Your task to perform on an android device: Add "apple airpods pro" to the cart on amazon.com, then select checkout. Image 0: 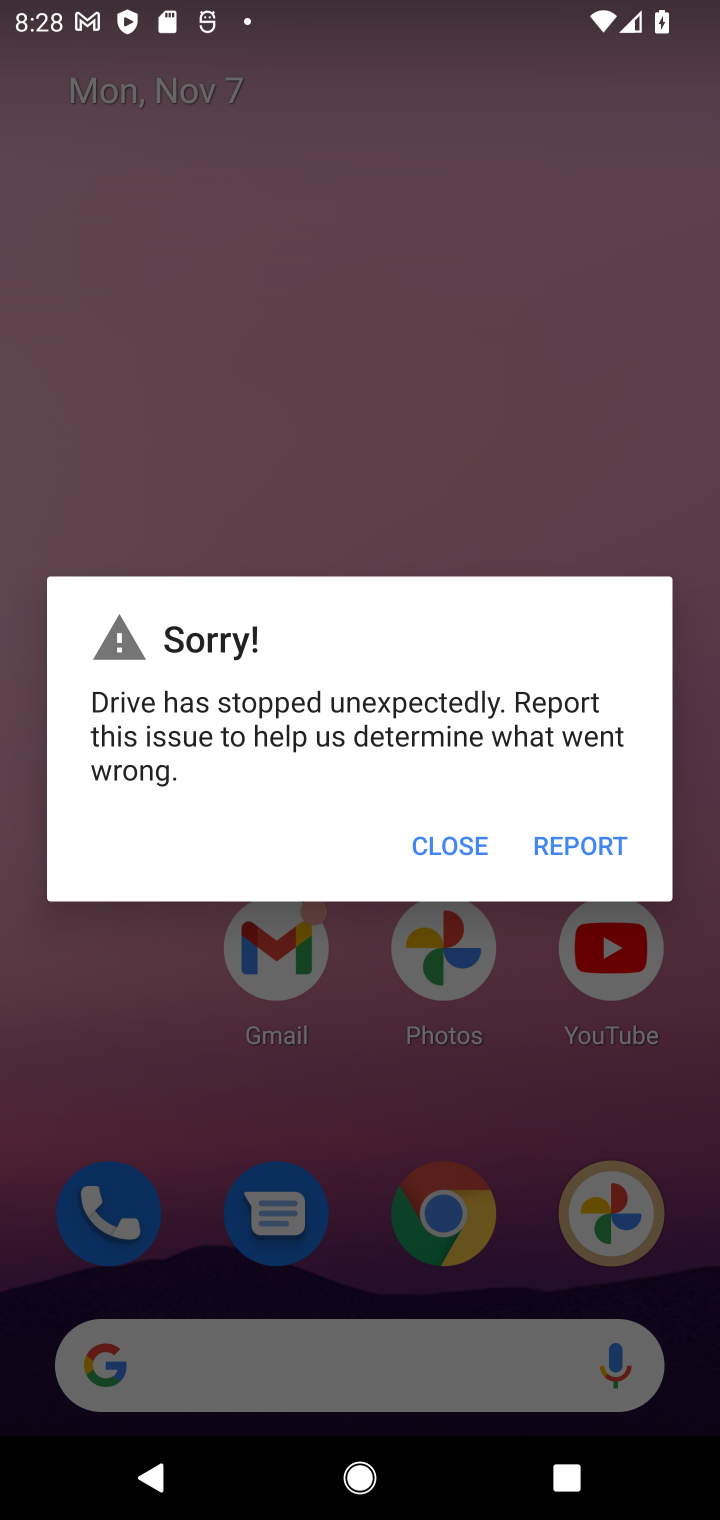
Step 0: press home button
Your task to perform on an android device: Add "apple airpods pro" to the cart on amazon.com, then select checkout. Image 1: 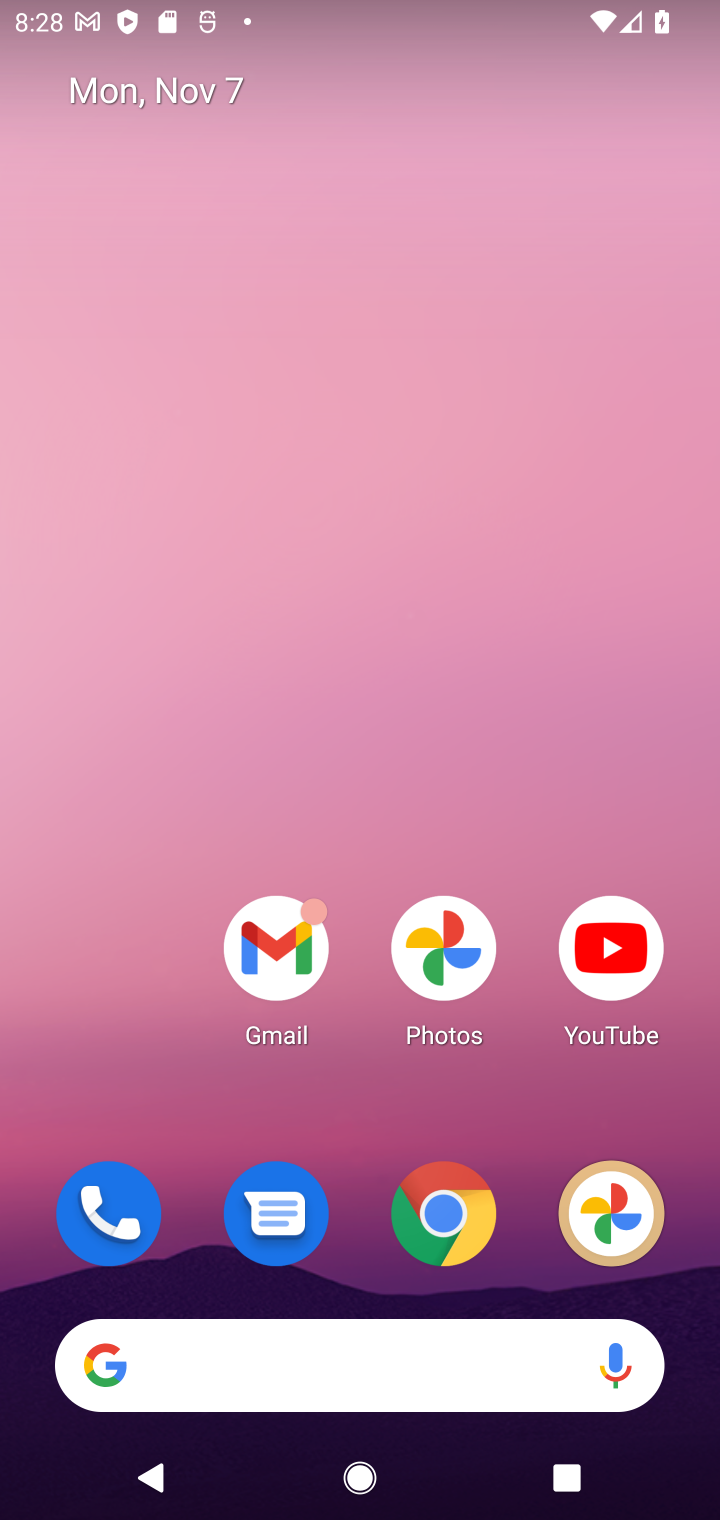
Step 1: click (431, 1221)
Your task to perform on an android device: Add "apple airpods pro" to the cart on amazon.com, then select checkout. Image 2: 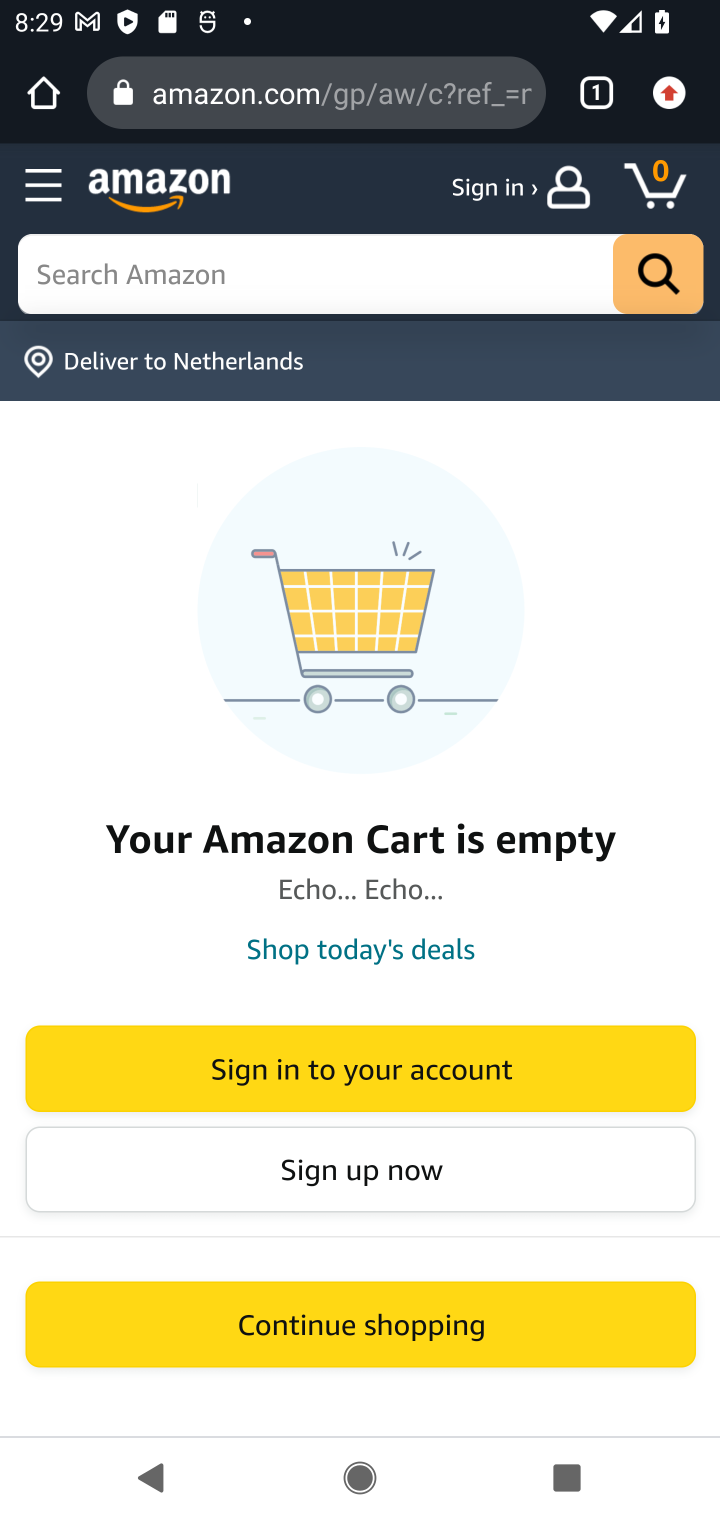
Step 2: click (176, 265)
Your task to perform on an android device: Add "apple airpods pro" to the cart on amazon.com, then select checkout. Image 3: 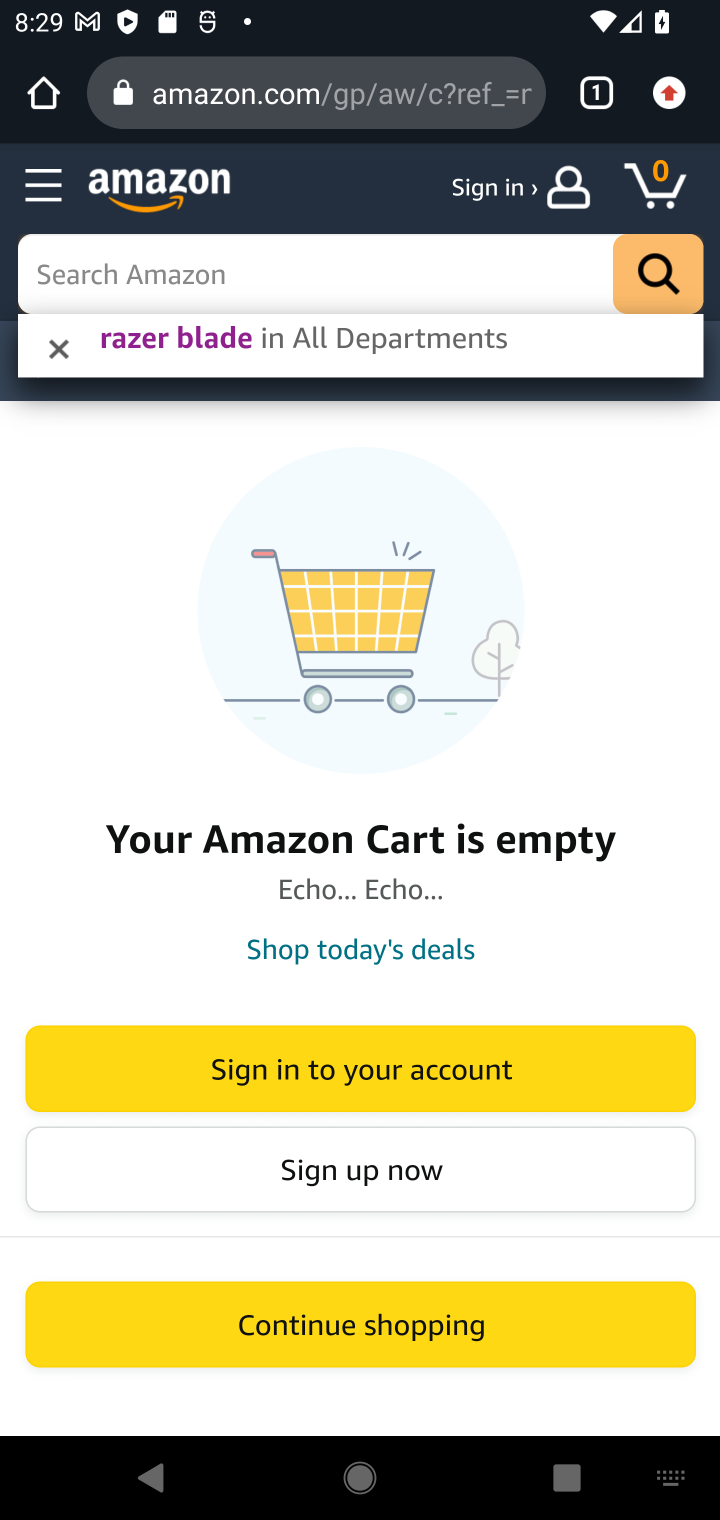
Step 3: type "apple airpods pro"
Your task to perform on an android device: Add "apple airpods pro" to the cart on amazon.com, then select checkout. Image 4: 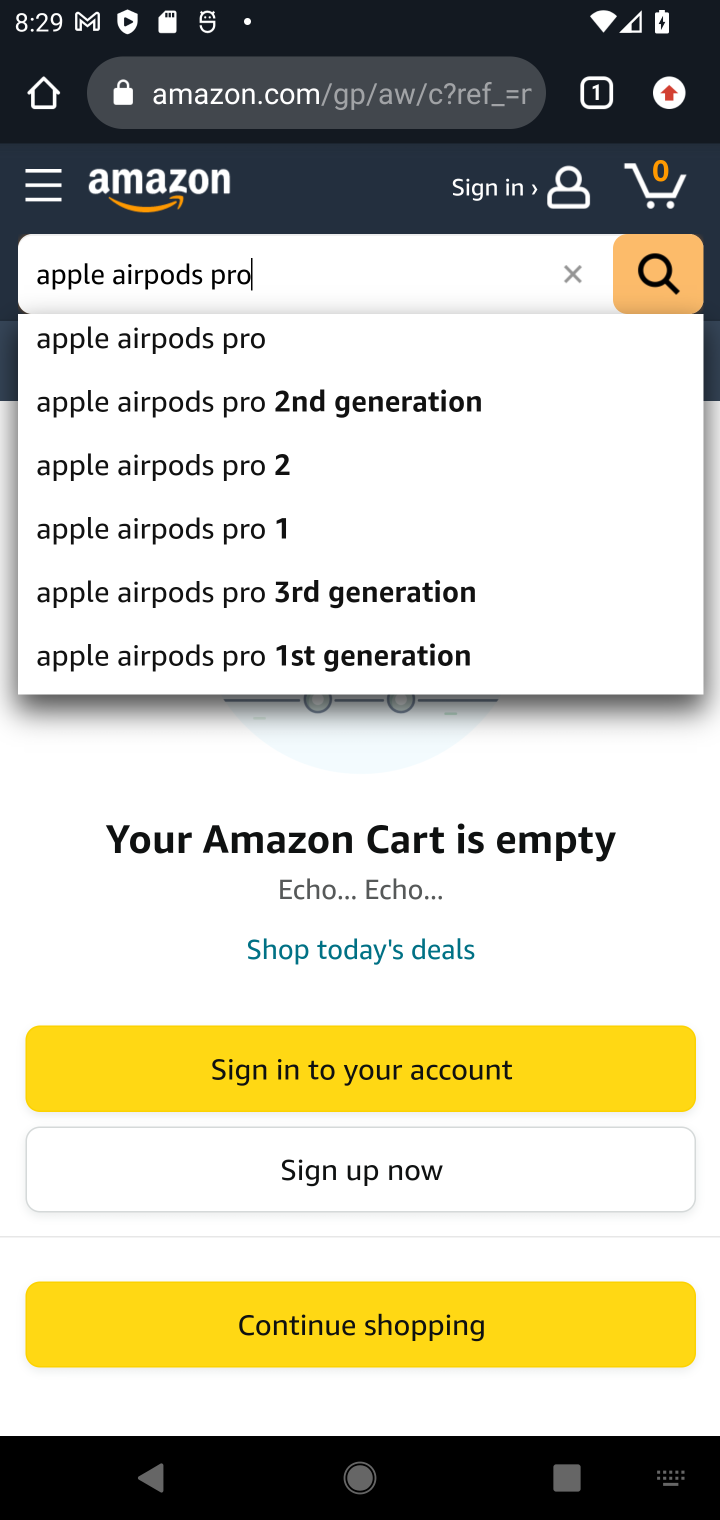
Step 4: click (189, 345)
Your task to perform on an android device: Add "apple airpods pro" to the cart on amazon.com, then select checkout. Image 5: 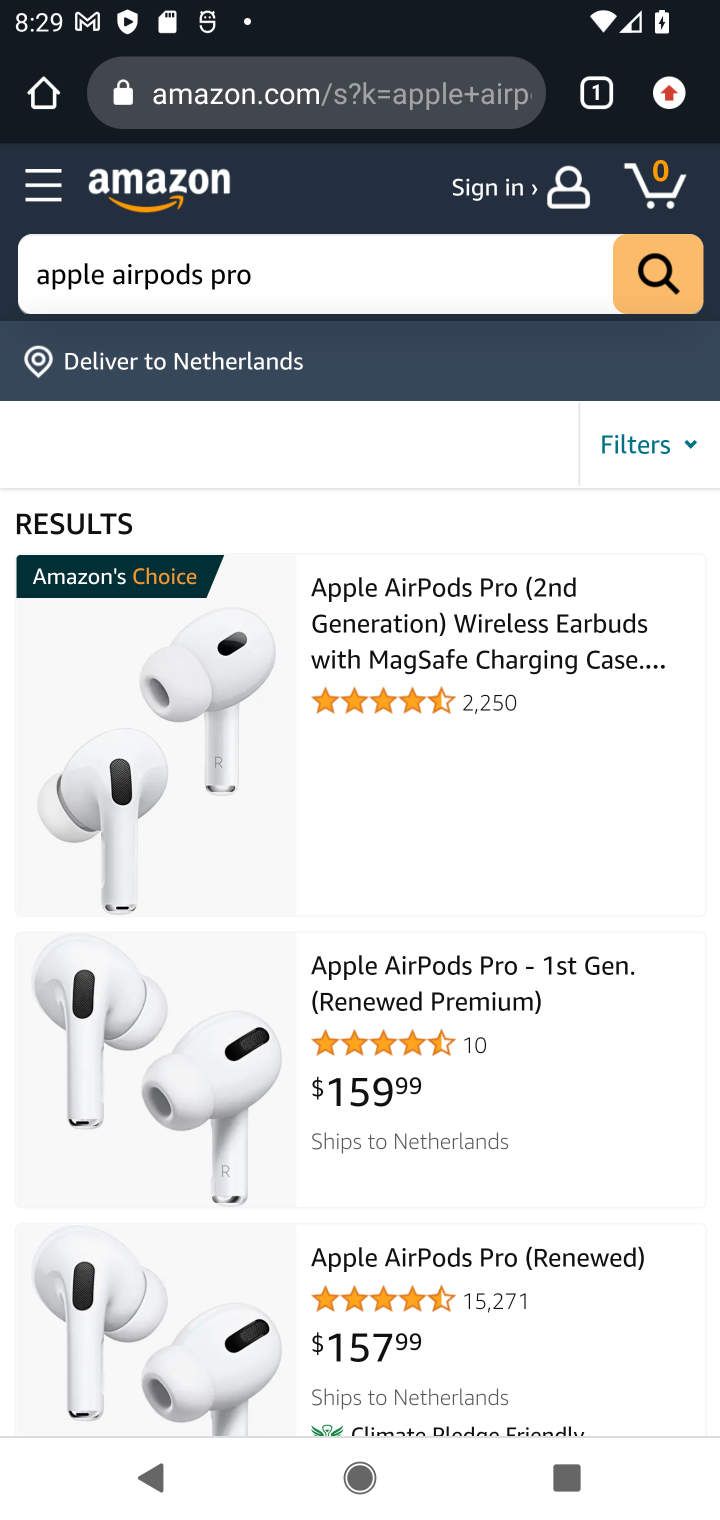
Step 5: click (199, 729)
Your task to perform on an android device: Add "apple airpods pro" to the cart on amazon.com, then select checkout. Image 6: 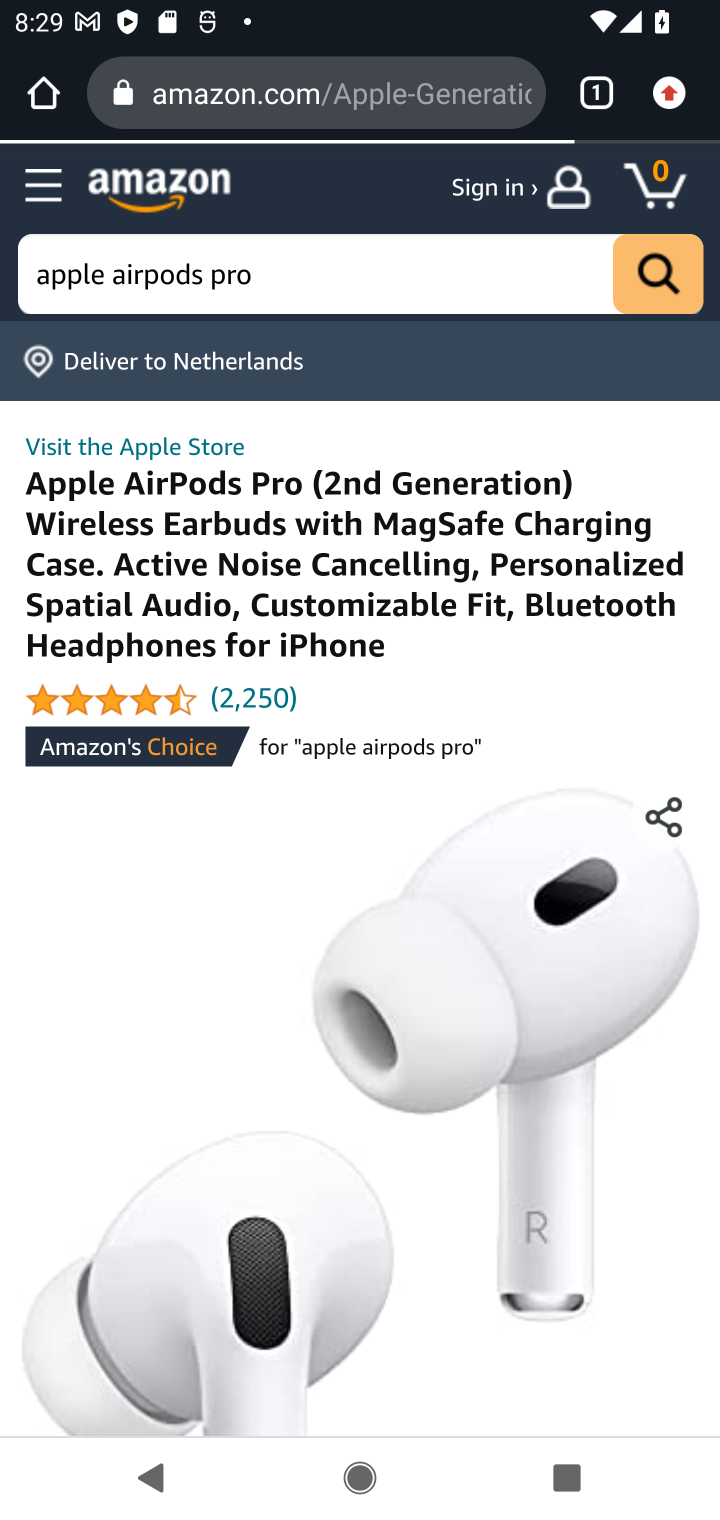
Step 6: drag from (274, 1179) to (275, 520)
Your task to perform on an android device: Add "apple airpods pro" to the cart on amazon.com, then select checkout. Image 7: 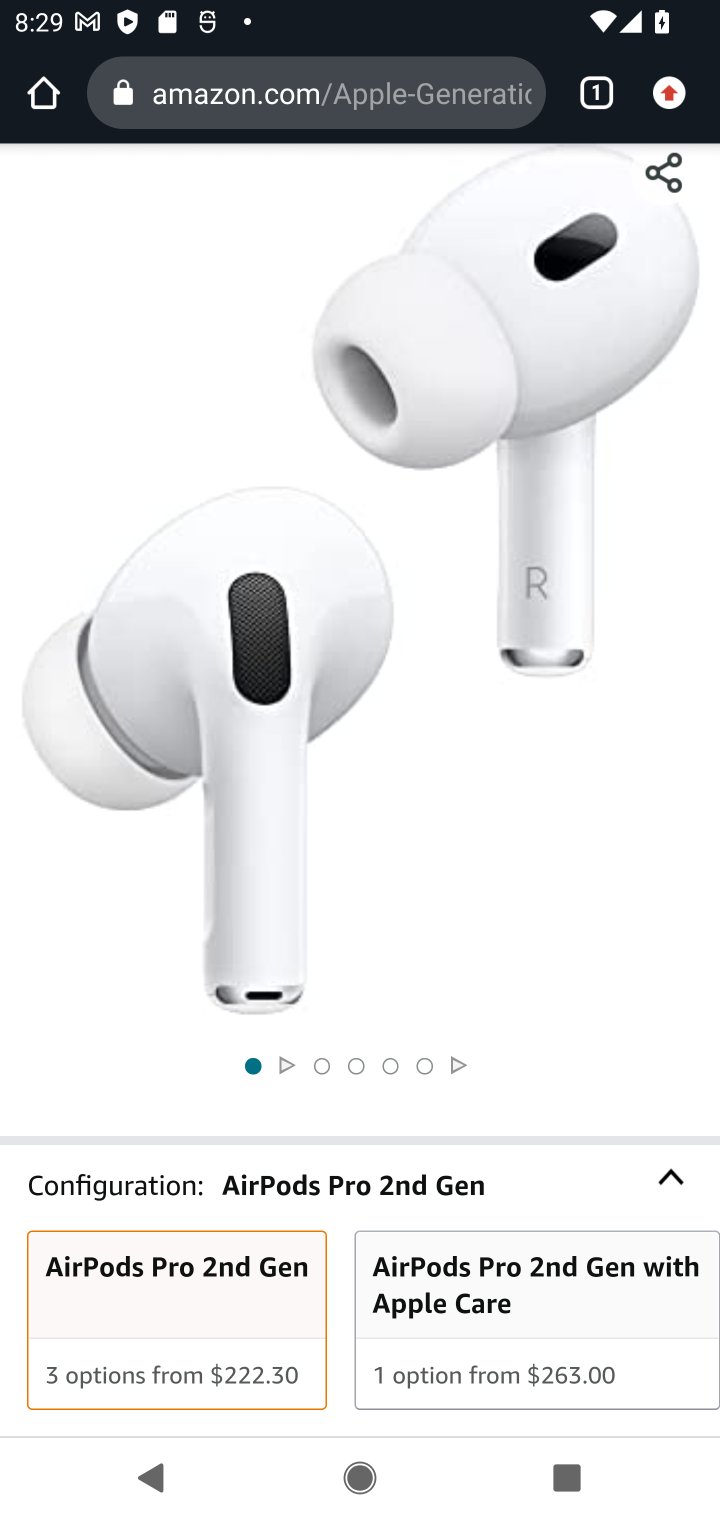
Step 7: drag from (280, 1047) to (286, 373)
Your task to perform on an android device: Add "apple airpods pro" to the cart on amazon.com, then select checkout. Image 8: 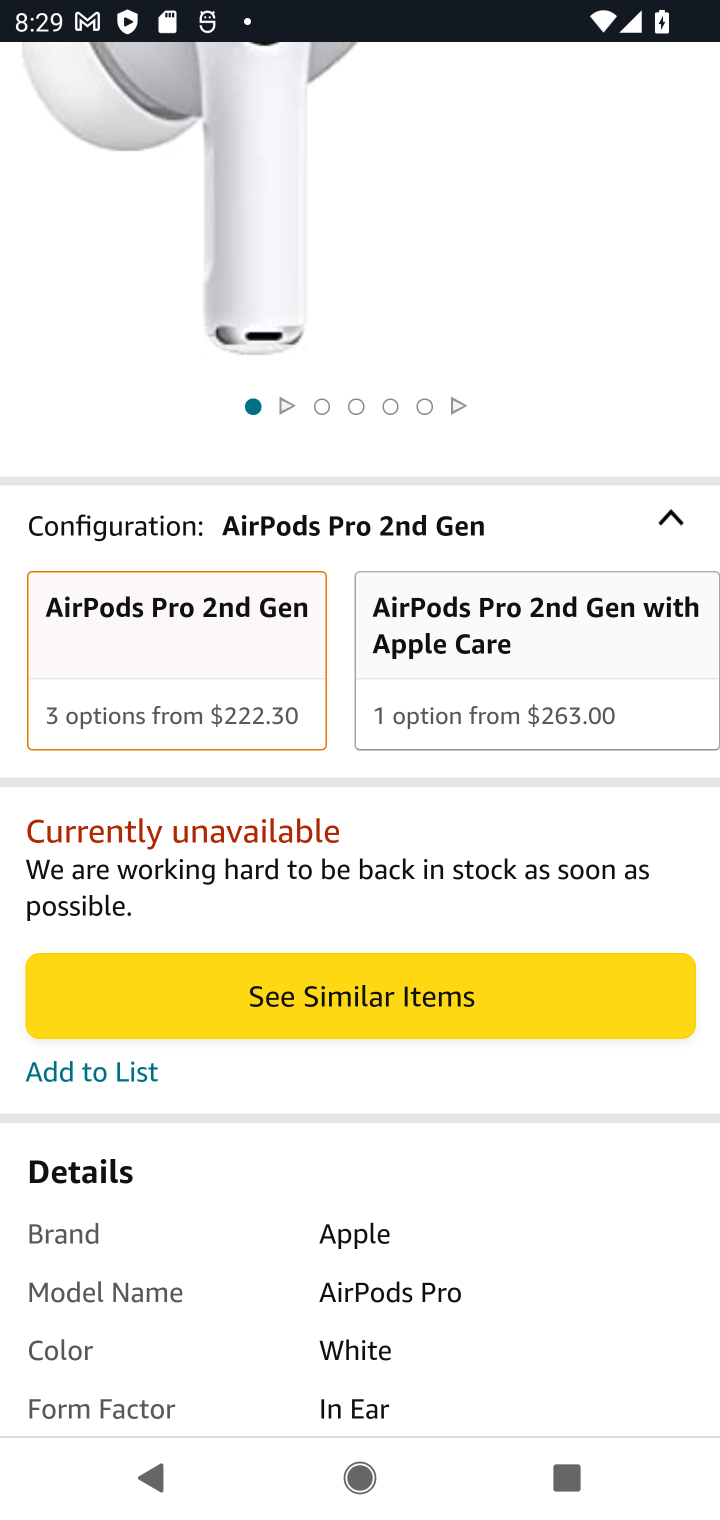
Step 8: drag from (362, 1024) to (324, 1508)
Your task to perform on an android device: Add "apple airpods pro" to the cart on amazon.com, then select checkout. Image 9: 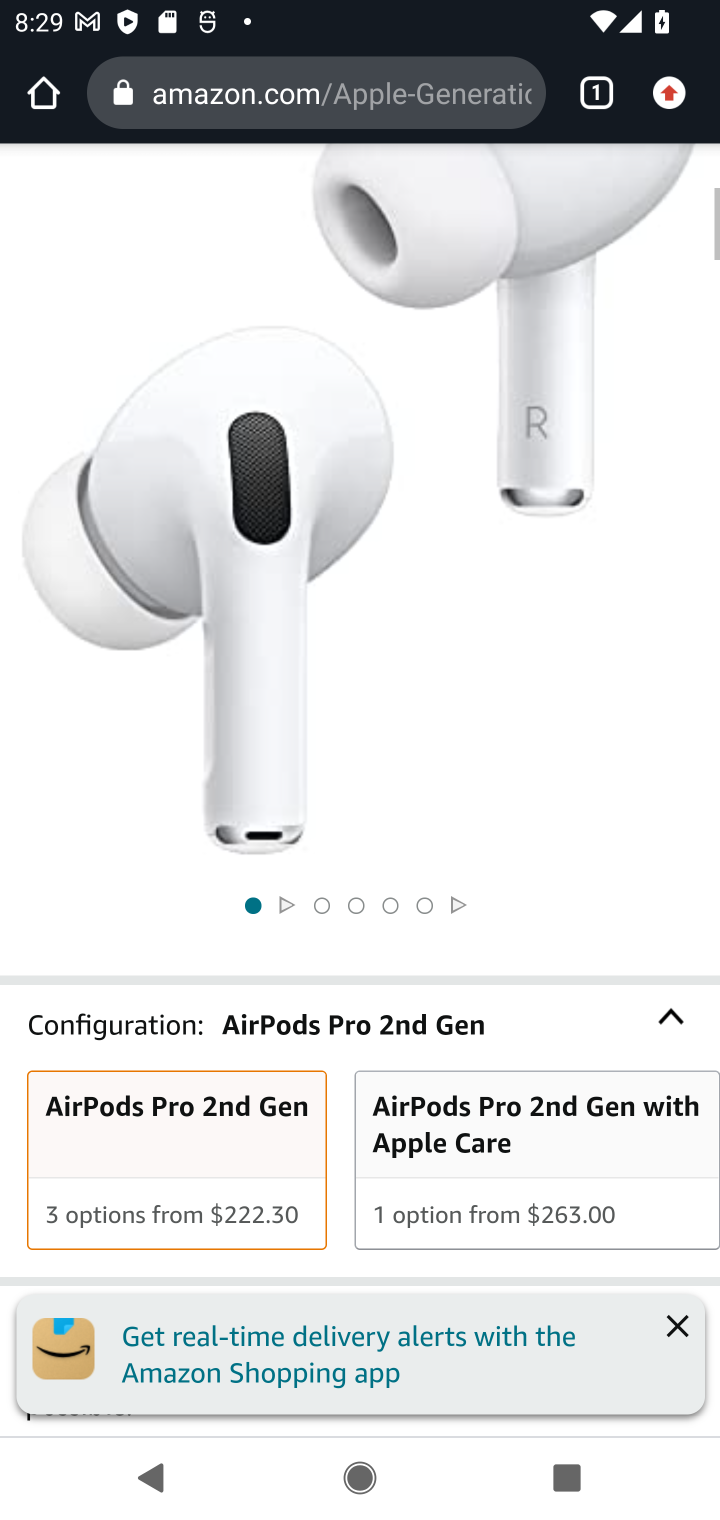
Step 9: press back button
Your task to perform on an android device: Add "apple airpods pro" to the cart on amazon.com, then select checkout. Image 10: 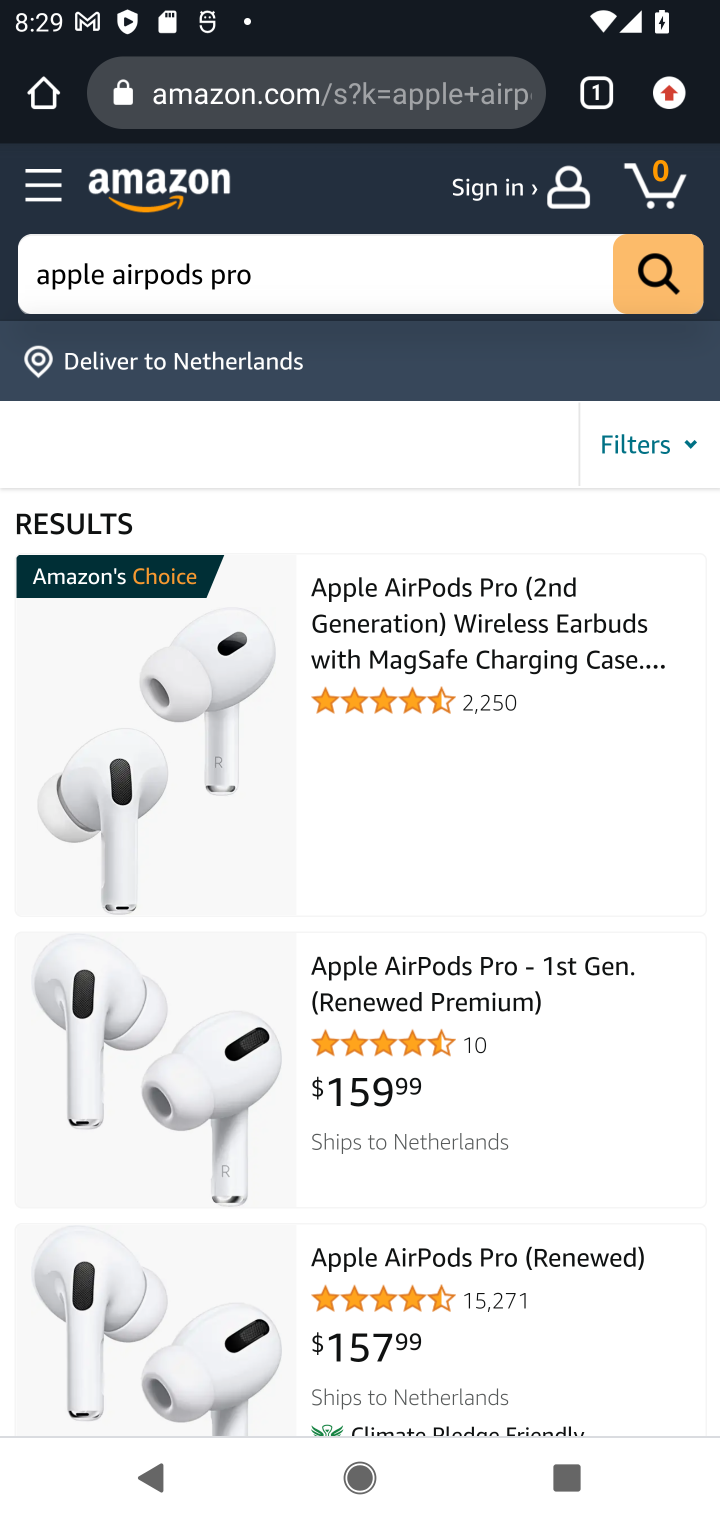
Step 10: drag from (297, 1237) to (293, 722)
Your task to perform on an android device: Add "apple airpods pro" to the cart on amazon.com, then select checkout. Image 11: 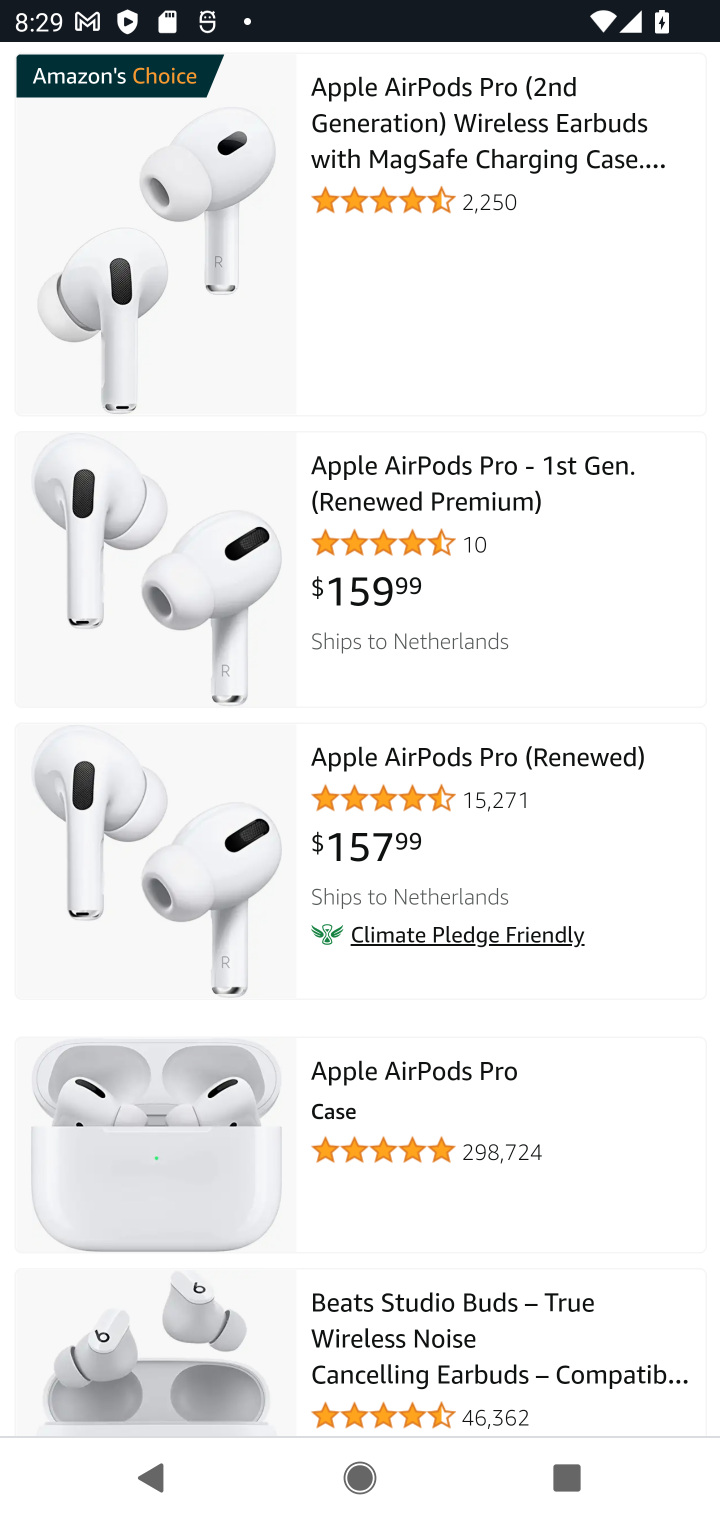
Step 11: drag from (288, 1201) to (265, 698)
Your task to perform on an android device: Add "apple airpods pro" to the cart on amazon.com, then select checkout. Image 12: 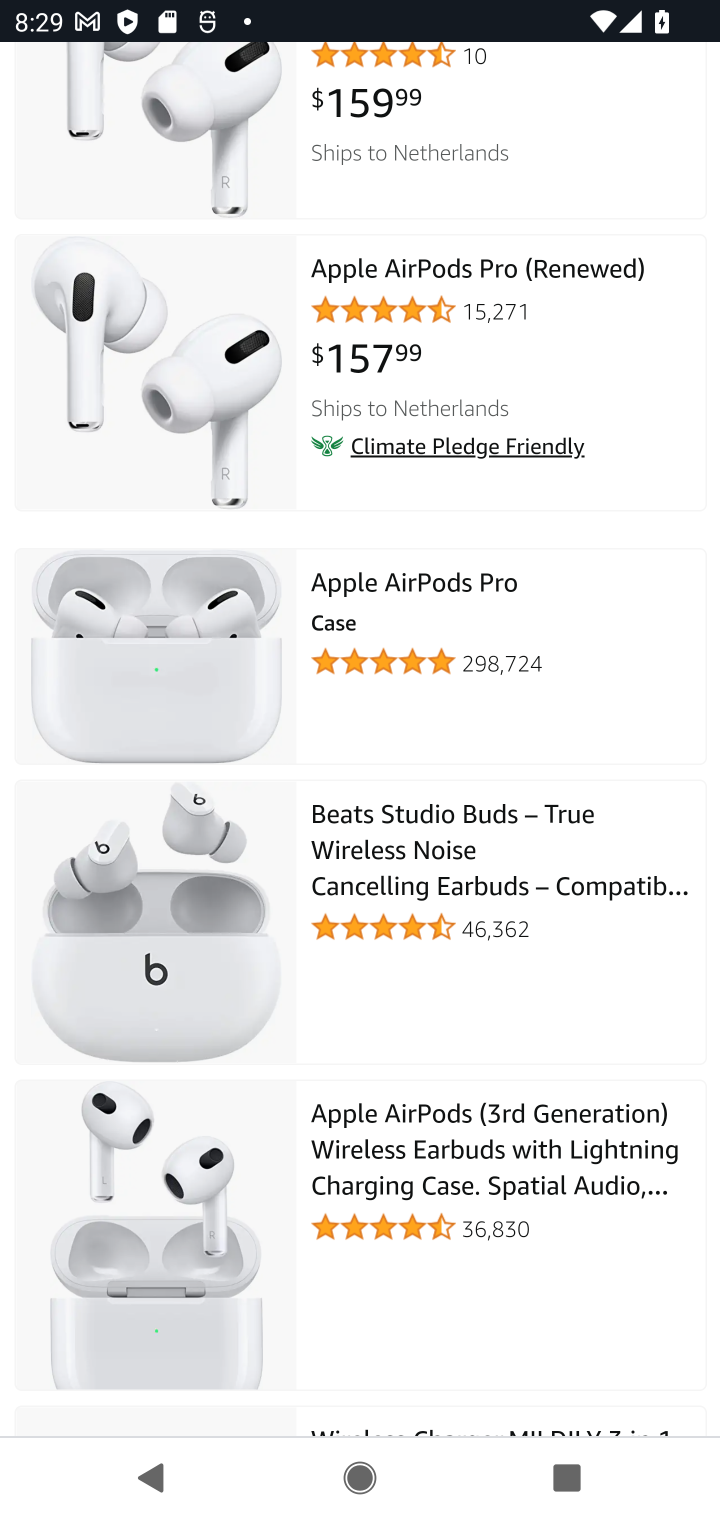
Step 12: drag from (219, 1065) to (187, 879)
Your task to perform on an android device: Add "apple airpods pro" to the cart on amazon.com, then select checkout. Image 13: 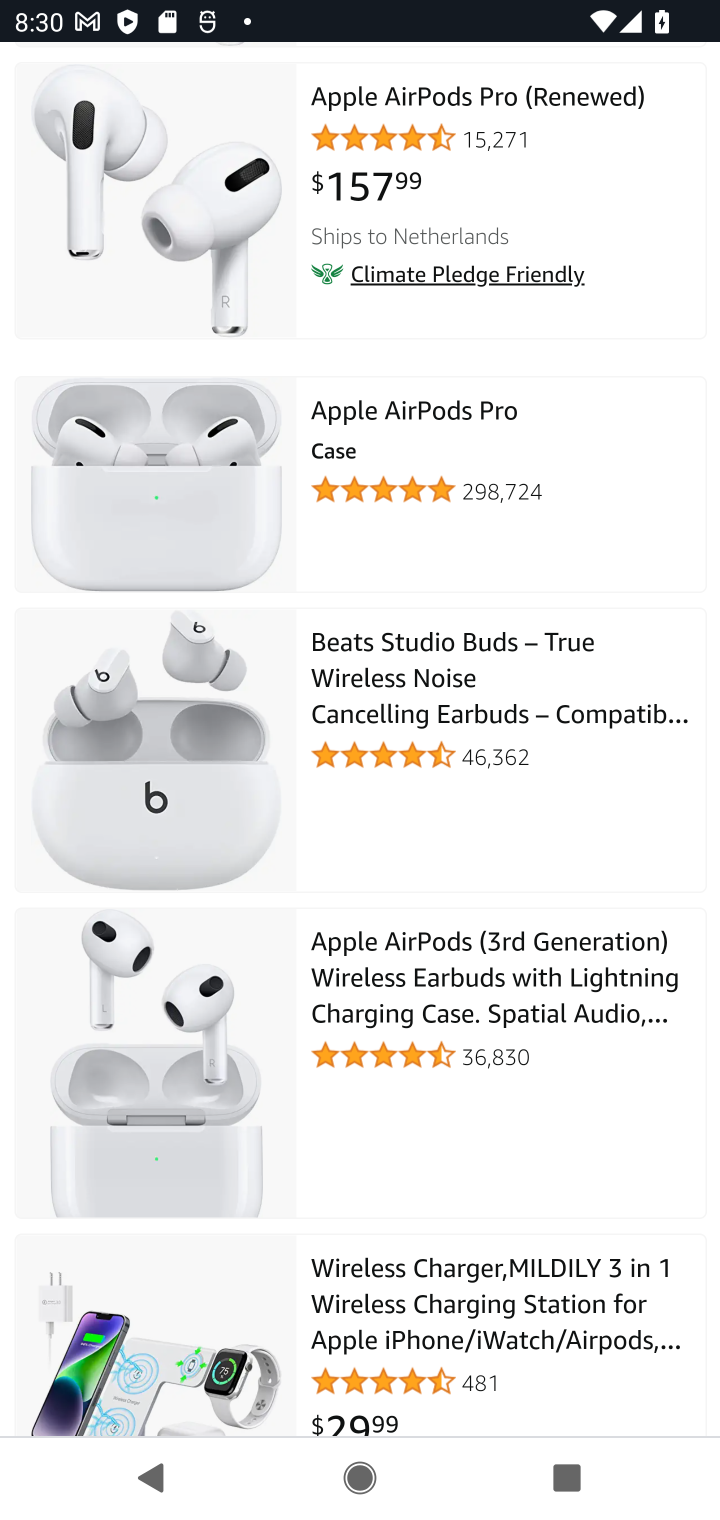
Step 13: drag from (263, 1290) to (263, 797)
Your task to perform on an android device: Add "apple airpods pro" to the cart on amazon.com, then select checkout. Image 14: 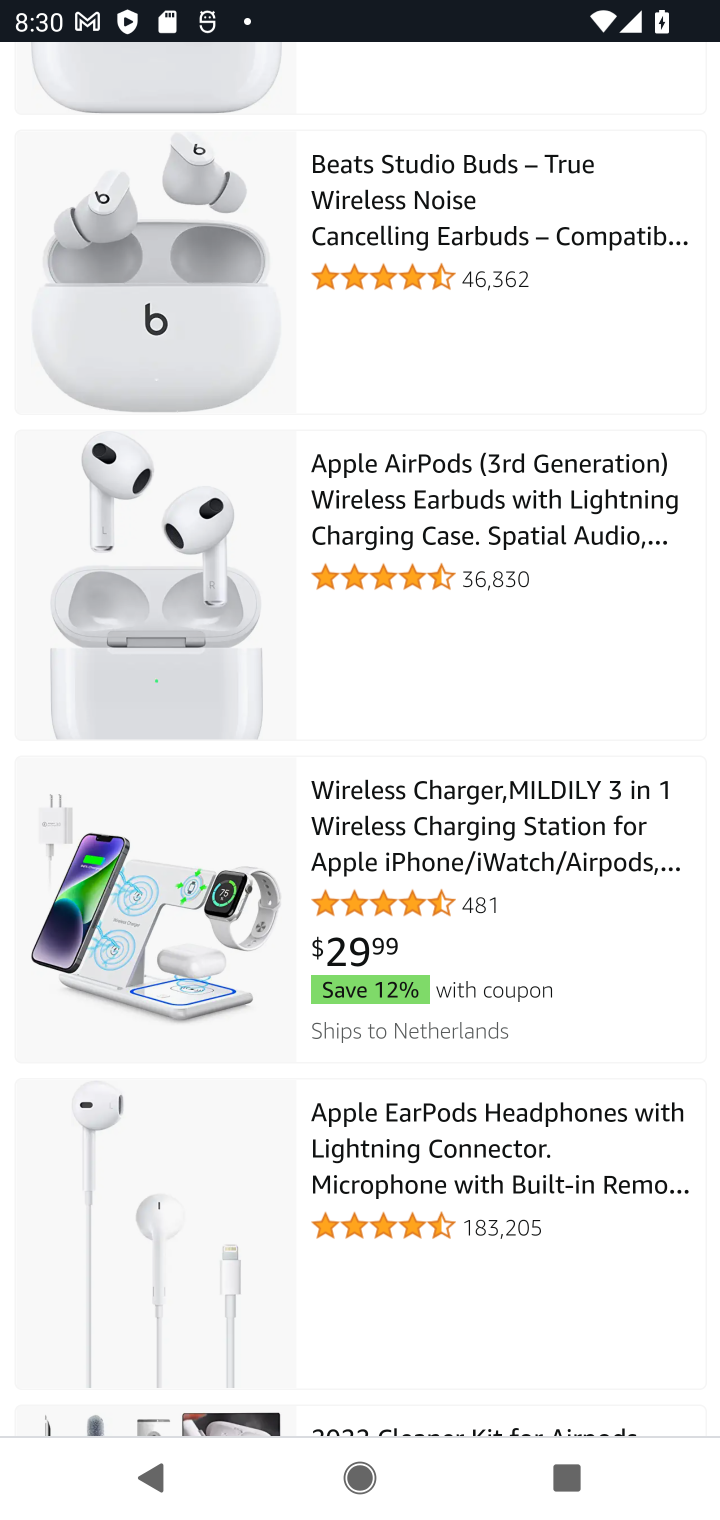
Step 14: drag from (242, 1237) to (189, 780)
Your task to perform on an android device: Add "apple airpods pro" to the cart on amazon.com, then select checkout. Image 15: 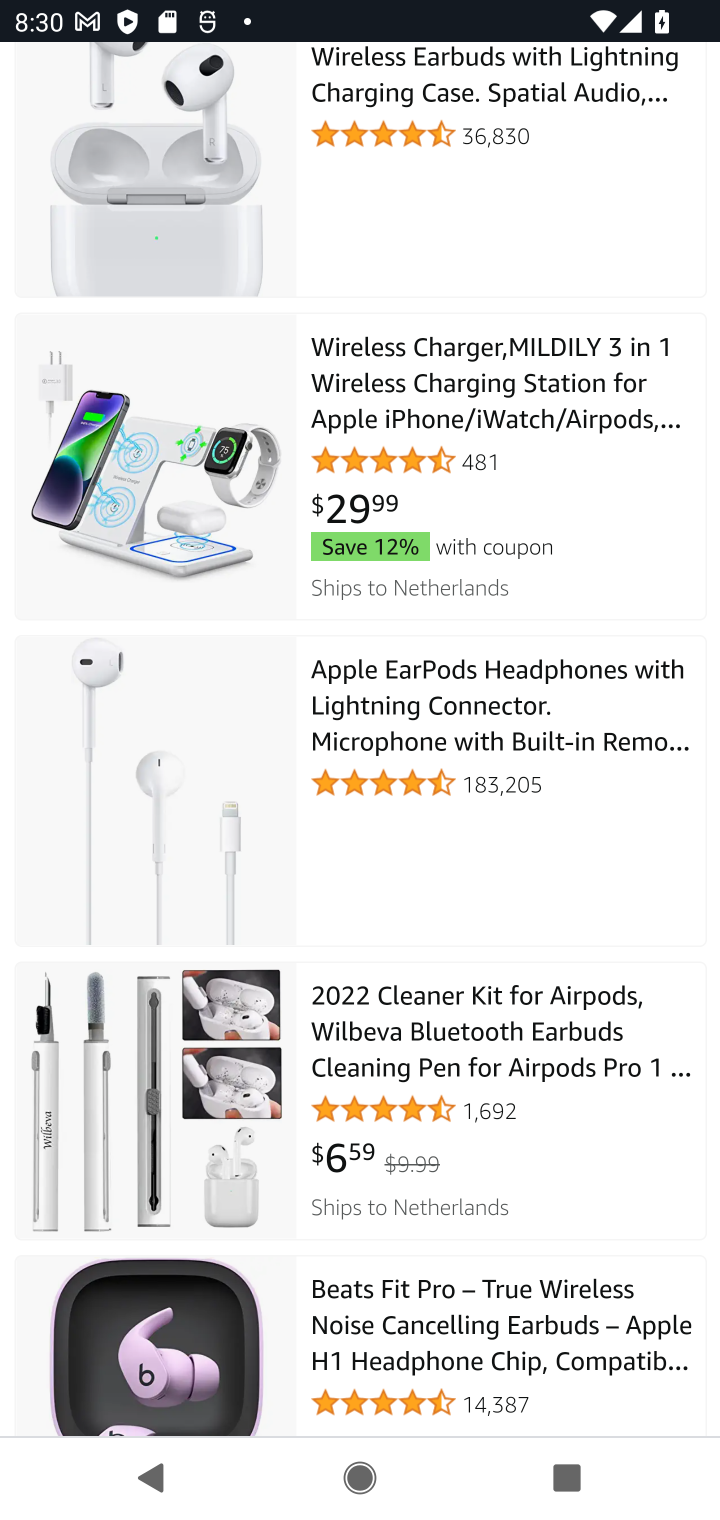
Step 15: drag from (237, 1306) to (241, 738)
Your task to perform on an android device: Add "apple airpods pro" to the cart on amazon.com, then select checkout. Image 16: 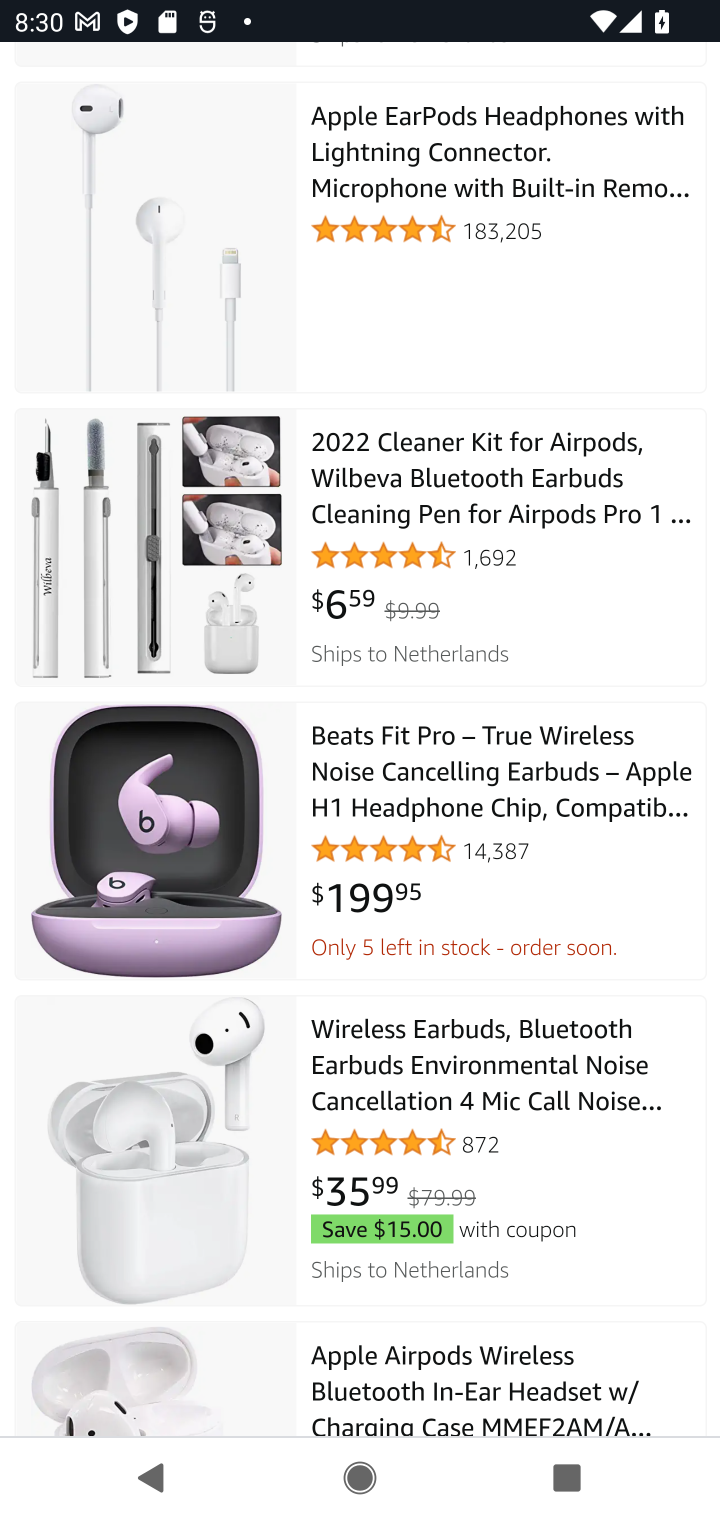
Step 16: drag from (258, 1095) to (256, 704)
Your task to perform on an android device: Add "apple airpods pro" to the cart on amazon.com, then select checkout. Image 17: 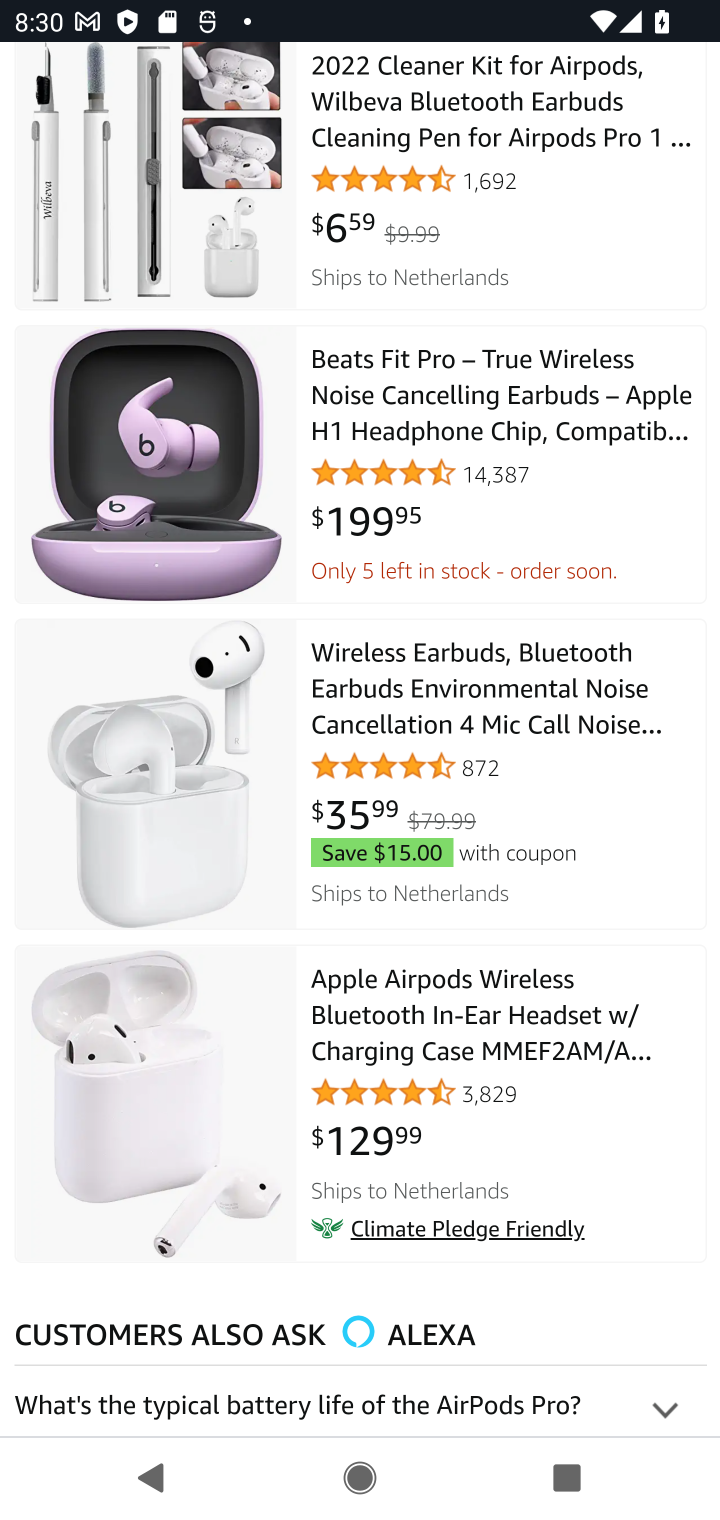
Step 17: click (188, 1065)
Your task to perform on an android device: Add "apple airpods pro" to the cart on amazon.com, then select checkout. Image 18: 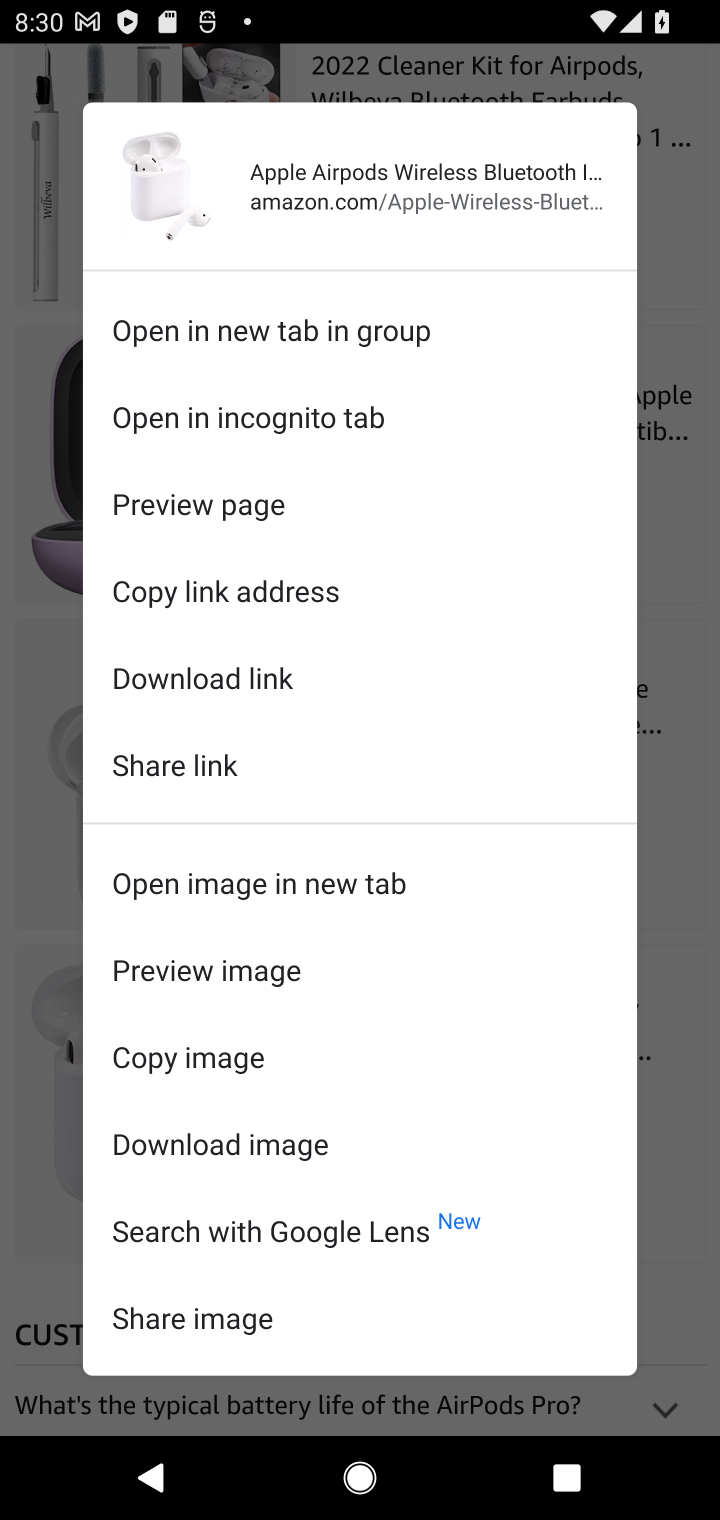
Step 18: press back button
Your task to perform on an android device: Add "apple airpods pro" to the cart on amazon.com, then select checkout. Image 19: 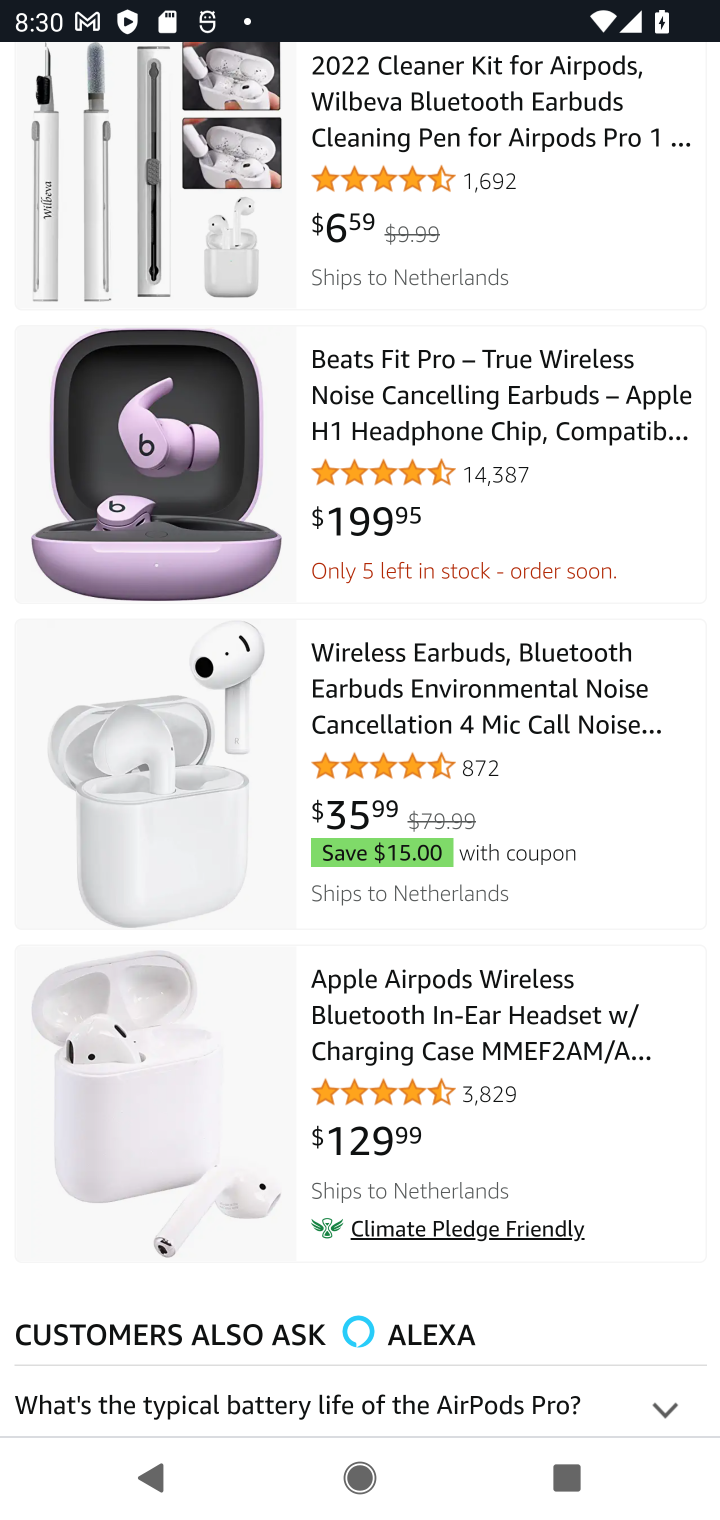
Step 19: drag from (237, 1166) to (259, 543)
Your task to perform on an android device: Add "apple airpods pro" to the cart on amazon.com, then select checkout. Image 20: 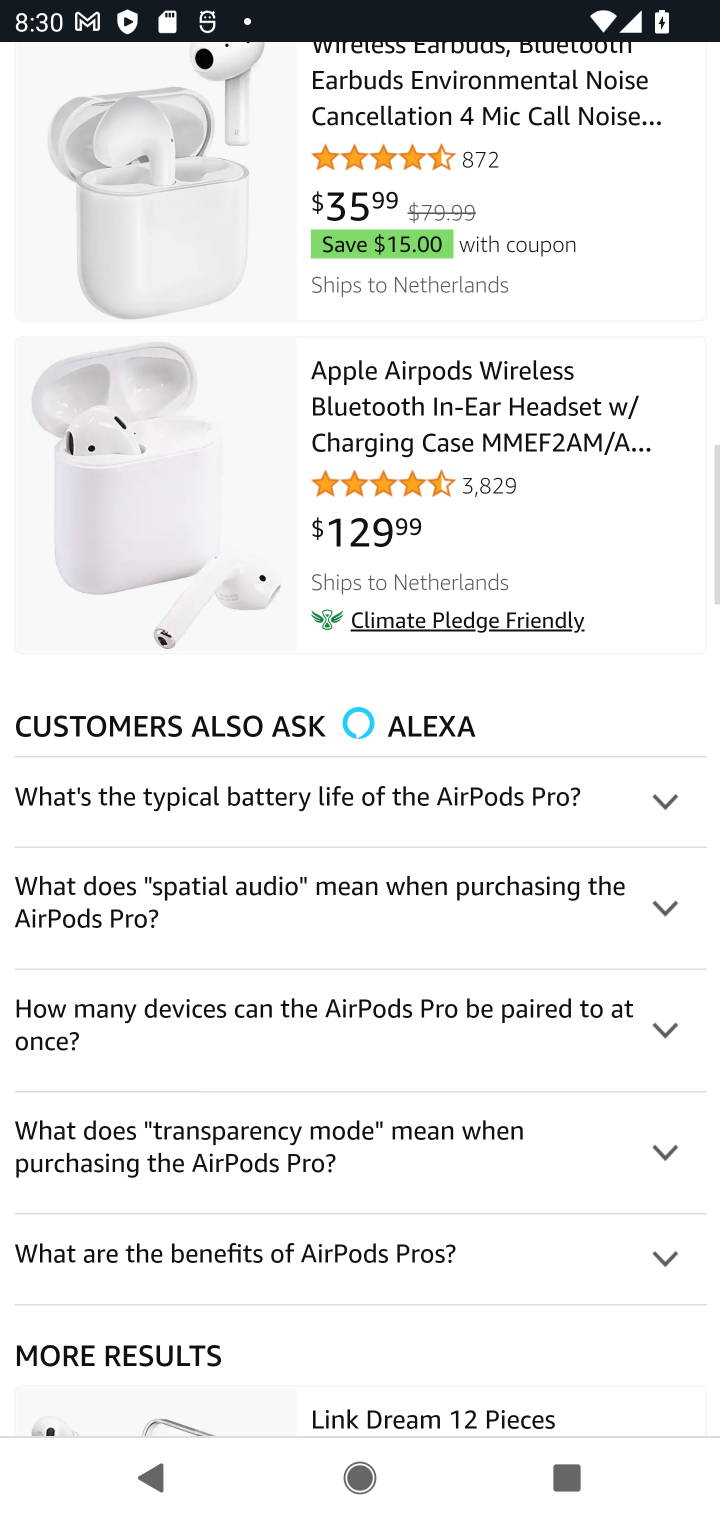
Step 20: drag from (258, 563) to (273, 1518)
Your task to perform on an android device: Add "apple airpods pro" to the cart on amazon.com, then select checkout. Image 21: 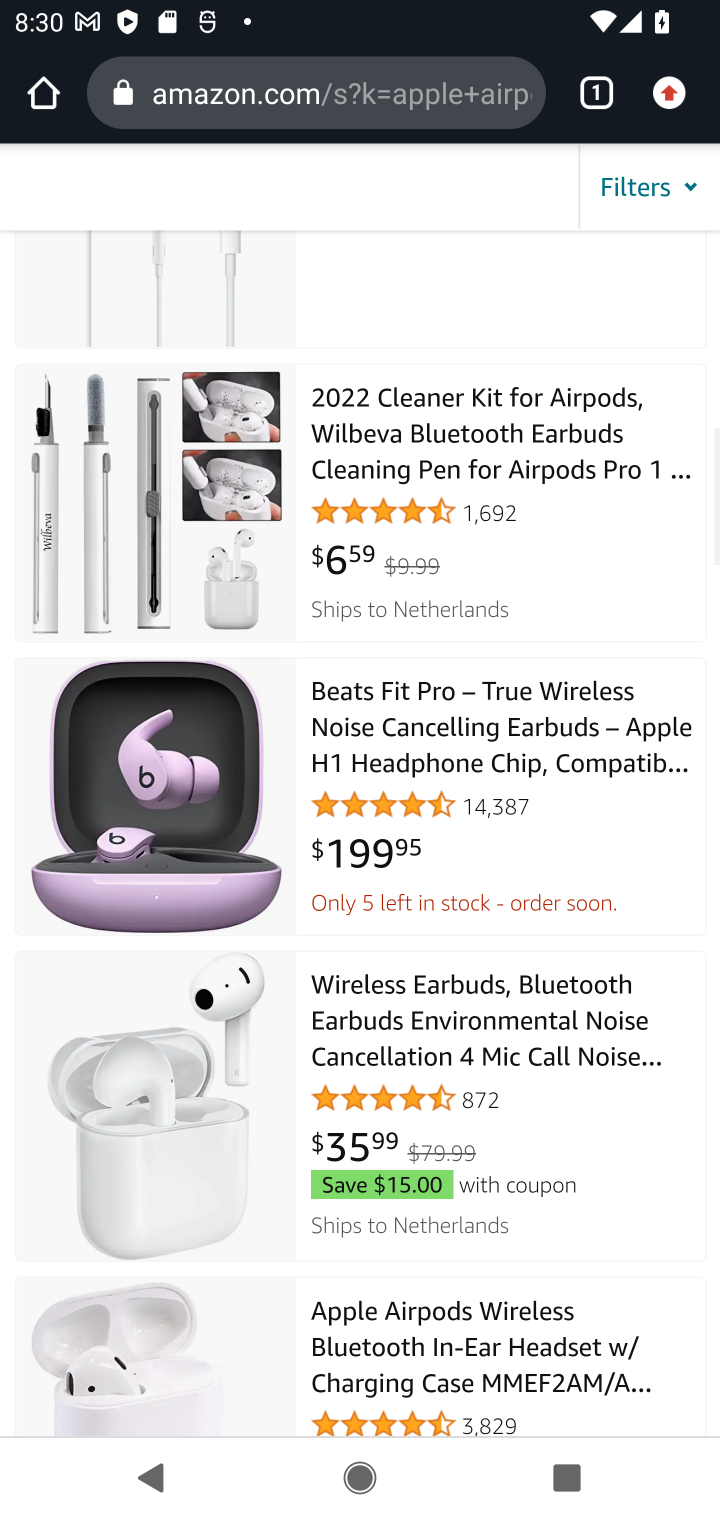
Step 21: drag from (250, 611) to (246, 1496)
Your task to perform on an android device: Add "apple airpods pro" to the cart on amazon.com, then select checkout. Image 22: 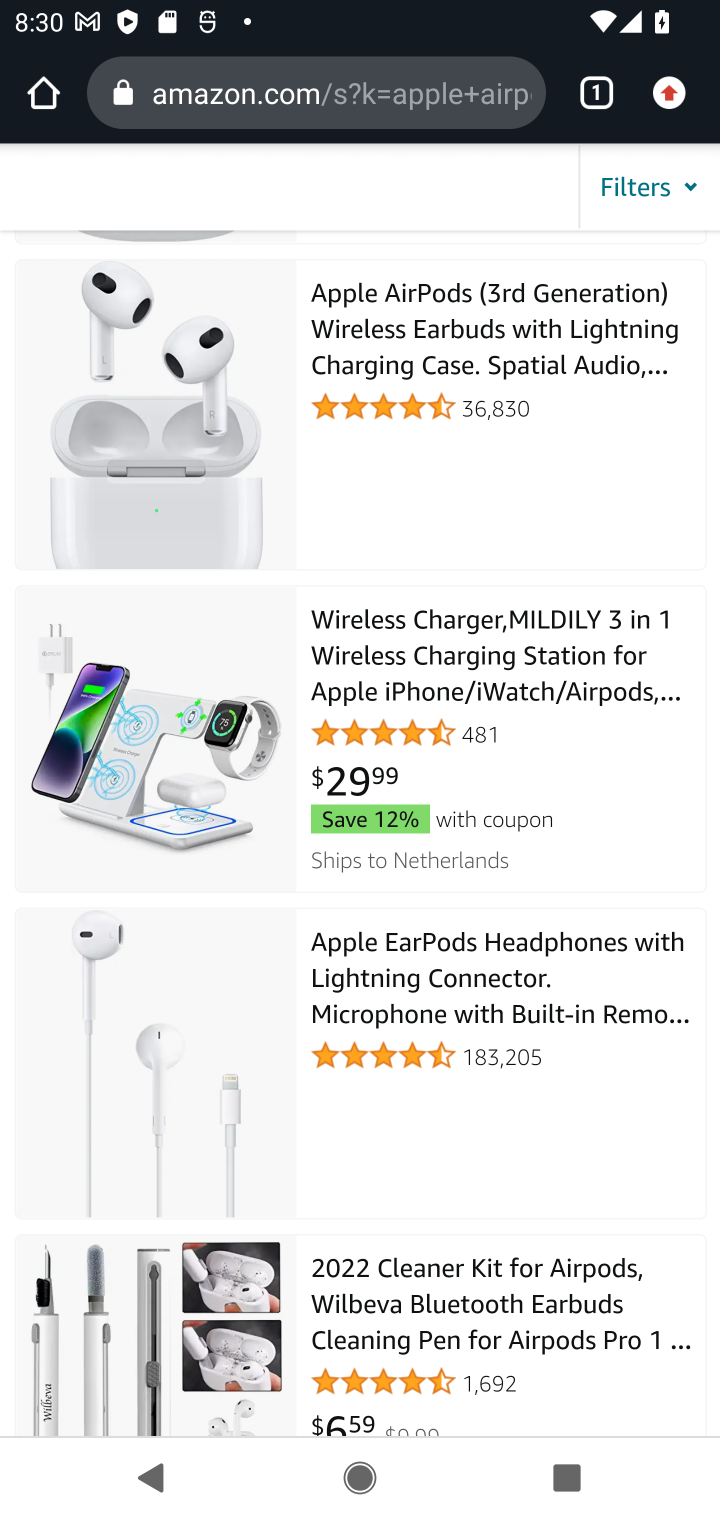
Step 22: drag from (234, 655) to (256, 1178)
Your task to perform on an android device: Add "apple airpods pro" to the cart on amazon.com, then select checkout. Image 23: 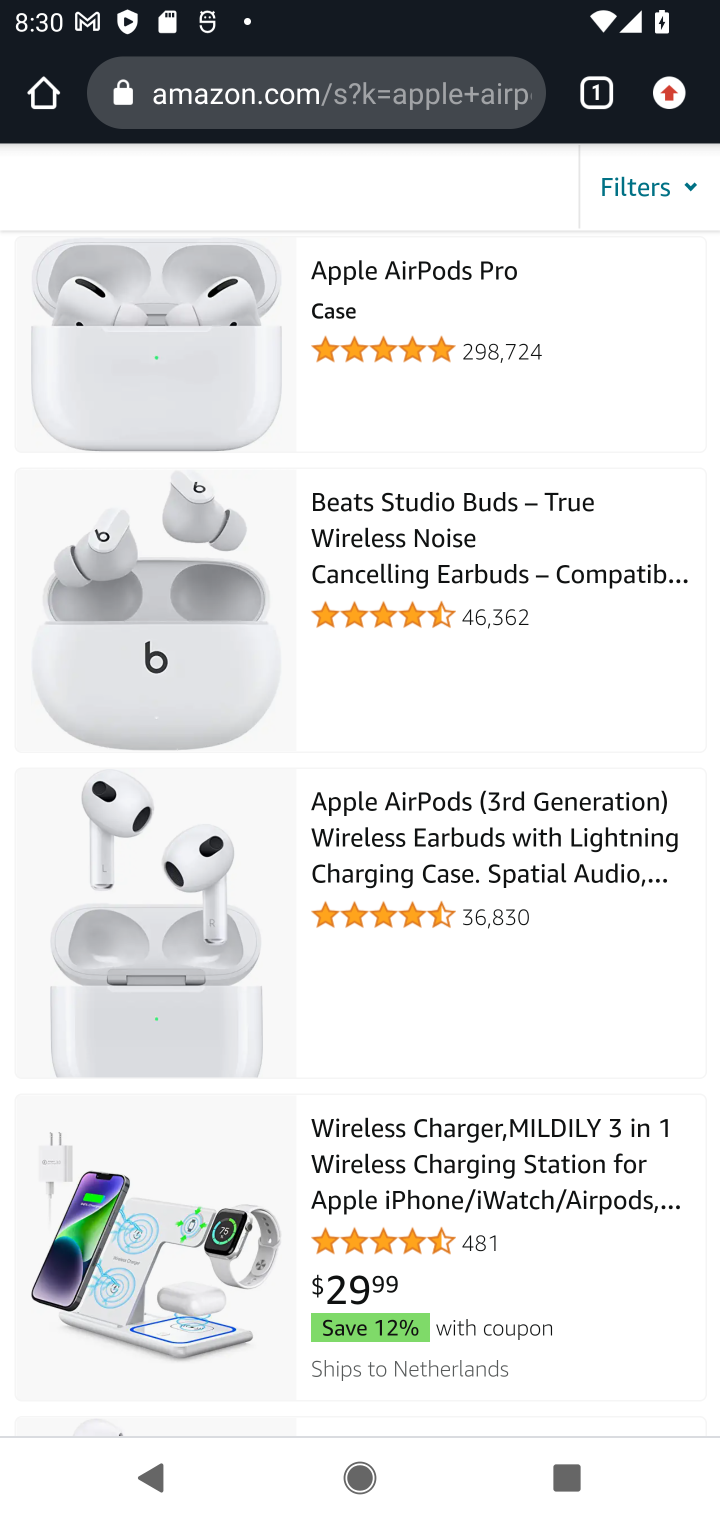
Step 23: drag from (235, 539) to (224, 894)
Your task to perform on an android device: Add "apple airpods pro" to the cart on amazon.com, then select checkout. Image 24: 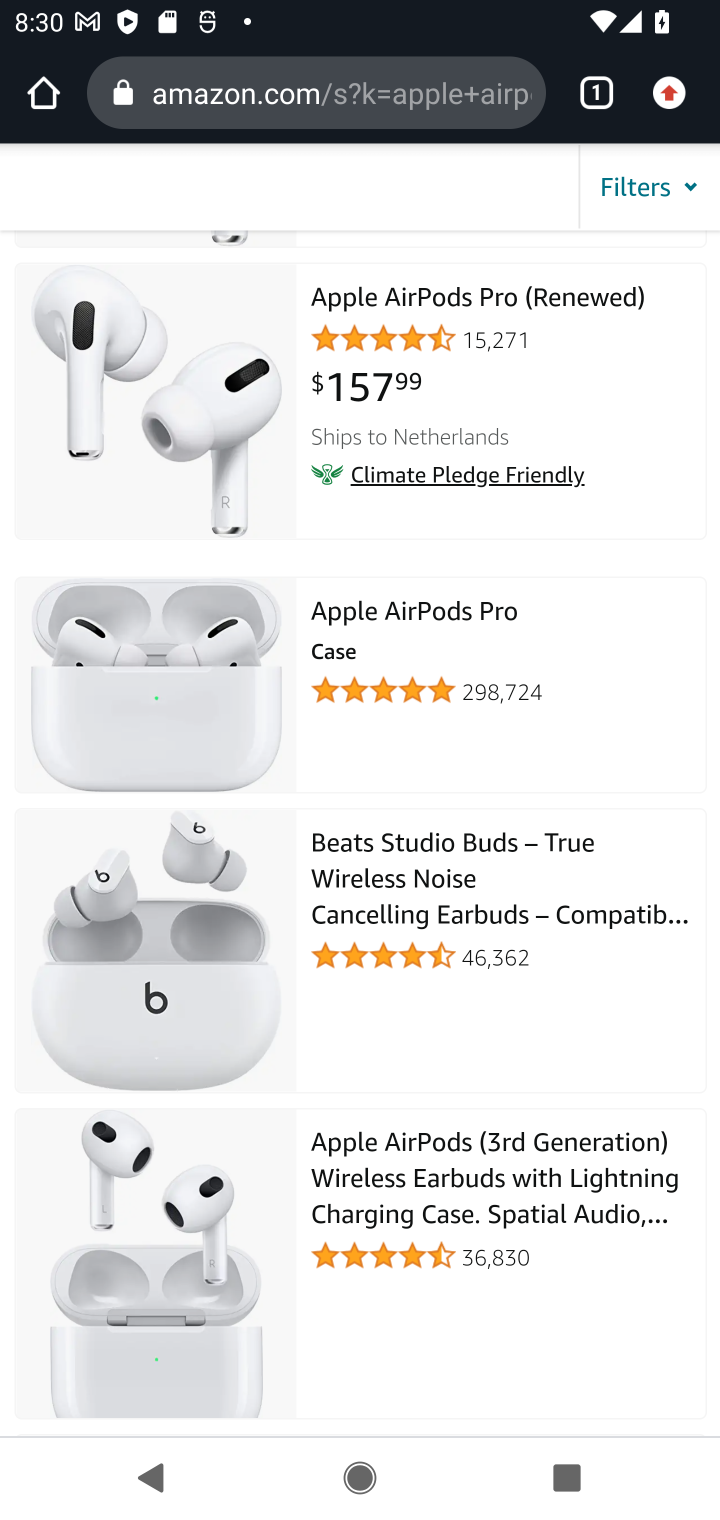
Step 24: click (226, 383)
Your task to perform on an android device: Add "apple airpods pro" to the cart on amazon.com, then select checkout. Image 25: 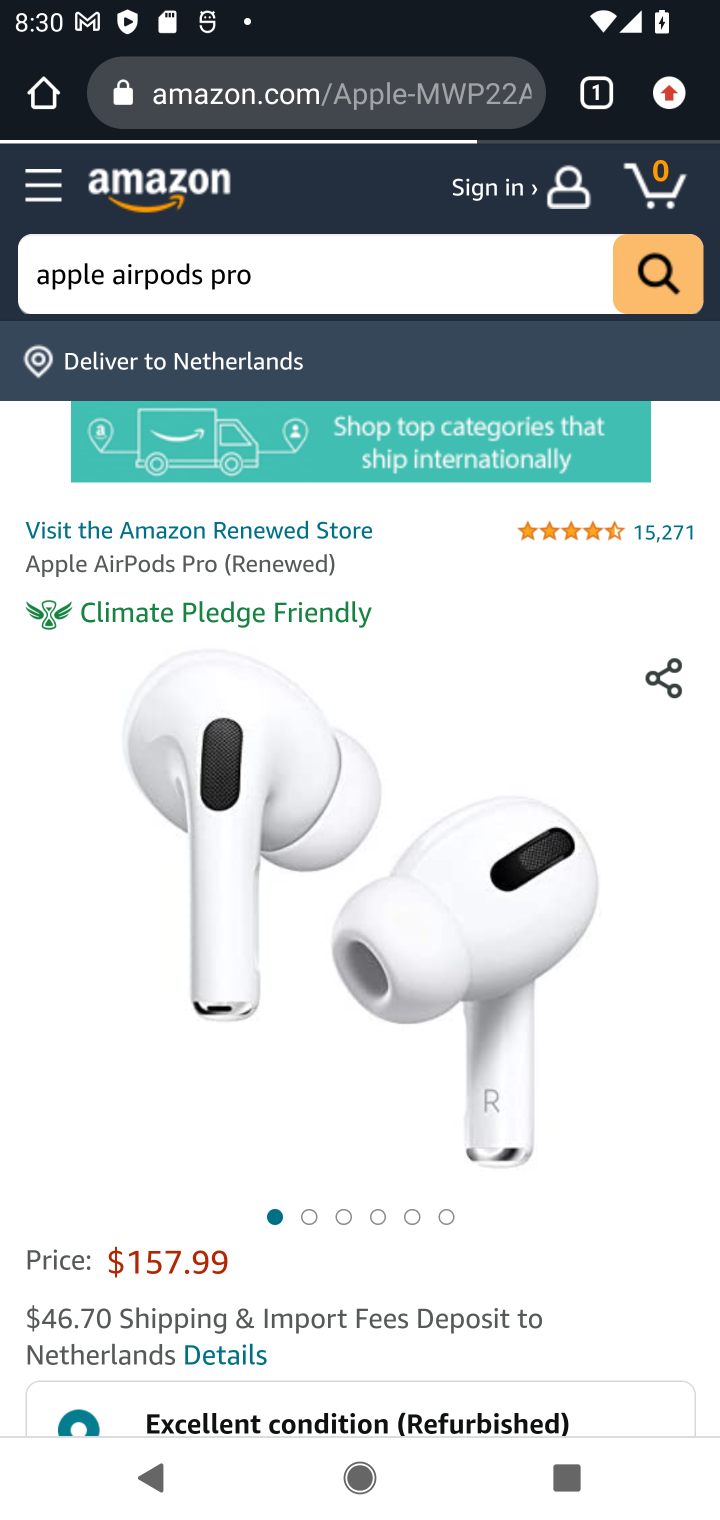
Step 25: drag from (330, 1019) to (334, 535)
Your task to perform on an android device: Add "apple airpods pro" to the cart on amazon.com, then select checkout. Image 26: 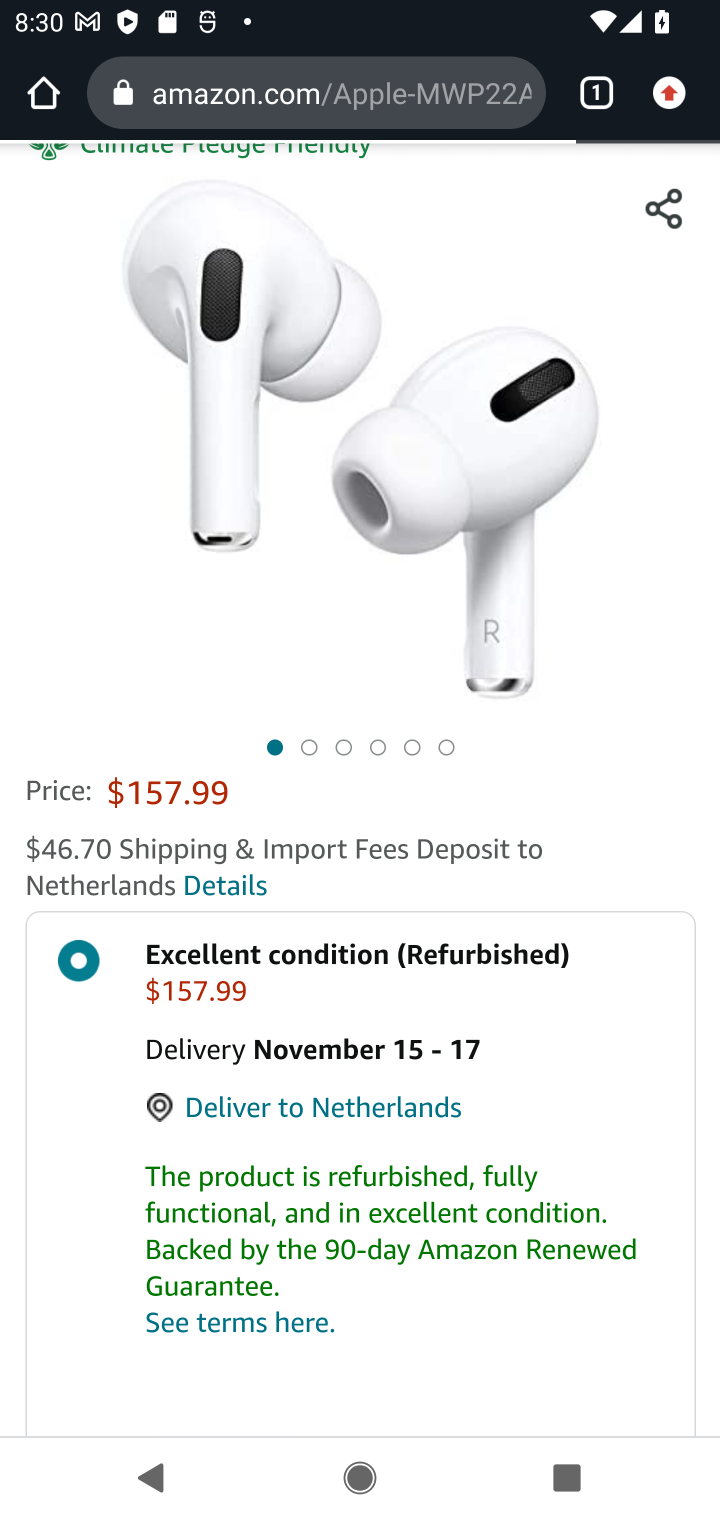
Step 26: drag from (423, 1085) to (393, 674)
Your task to perform on an android device: Add "apple airpods pro" to the cart on amazon.com, then select checkout. Image 27: 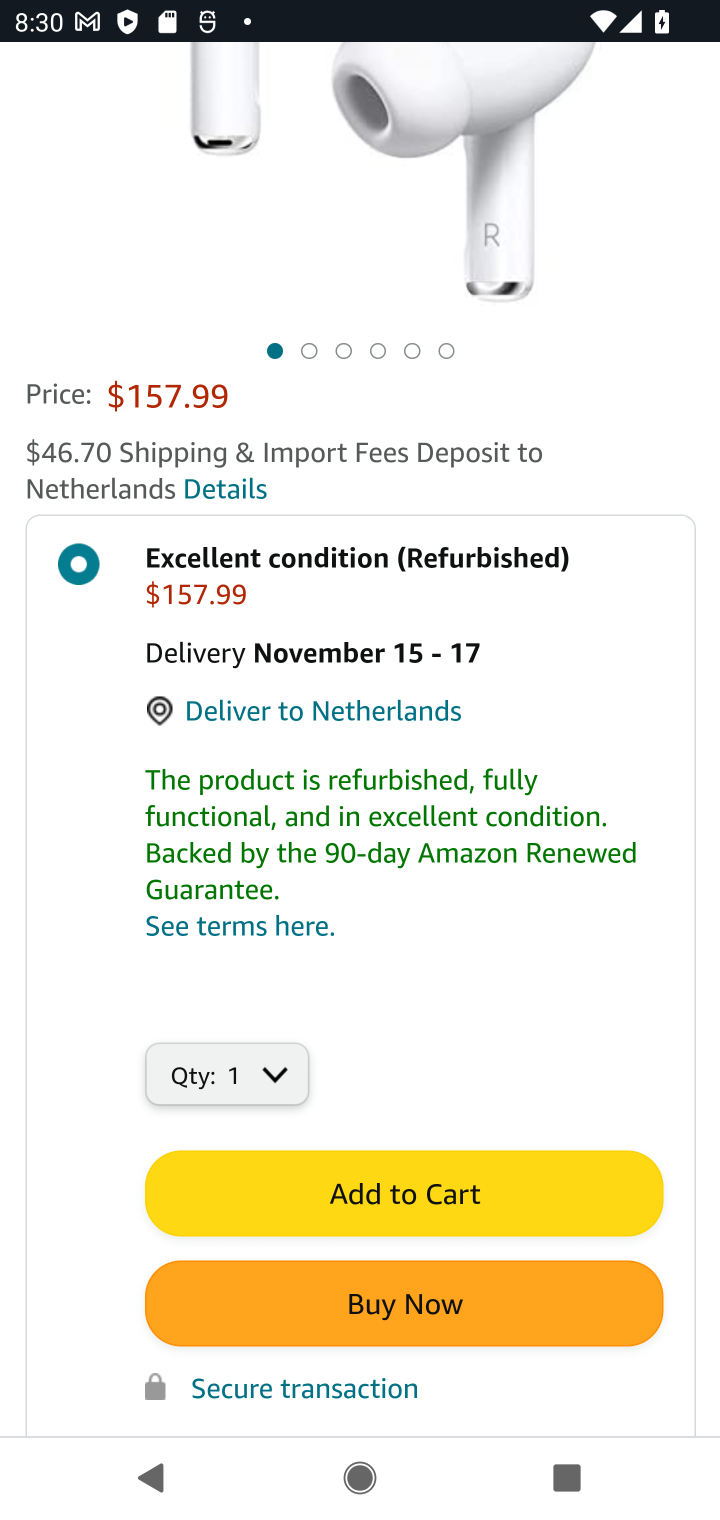
Step 27: click (369, 1194)
Your task to perform on an android device: Add "apple airpods pro" to the cart on amazon.com, then select checkout. Image 28: 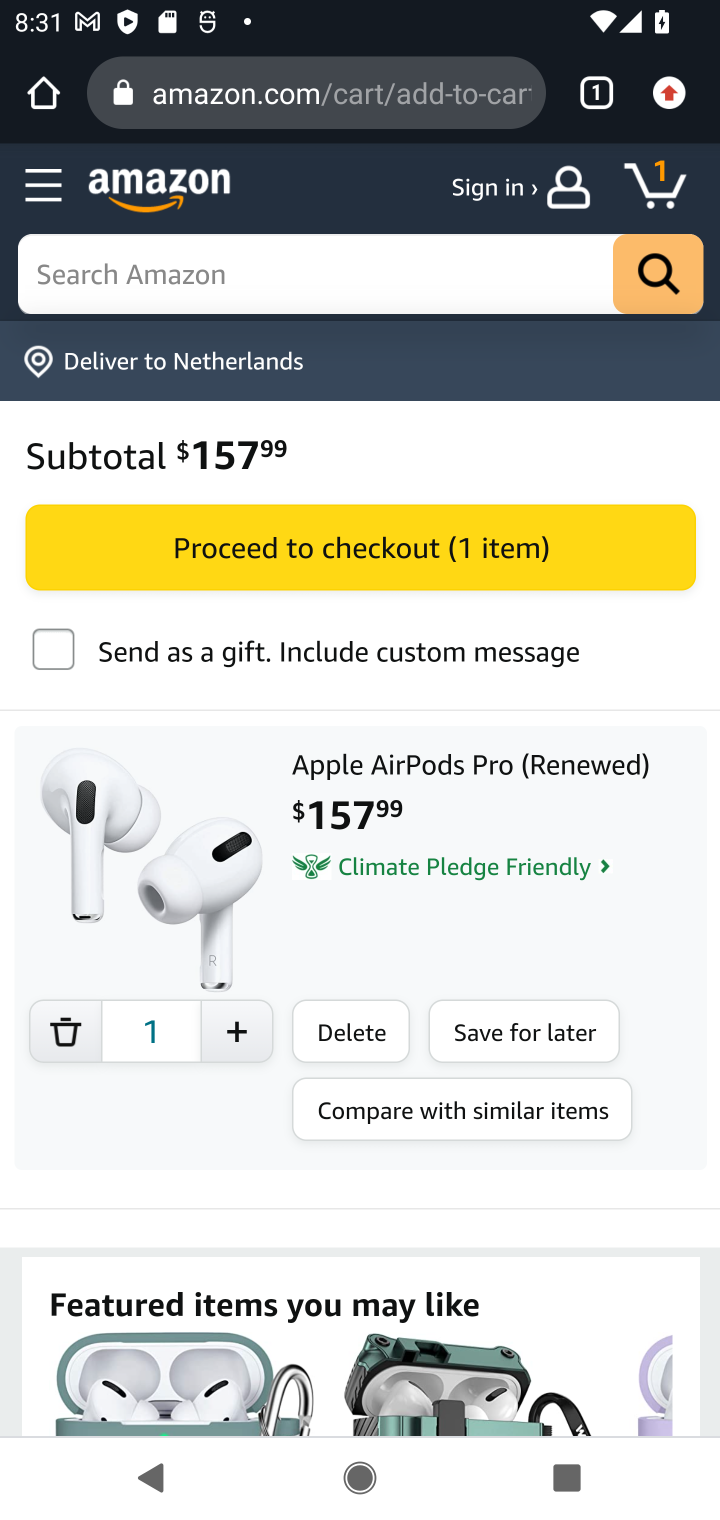
Step 28: click (403, 553)
Your task to perform on an android device: Add "apple airpods pro" to the cart on amazon.com, then select checkout. Image 29: 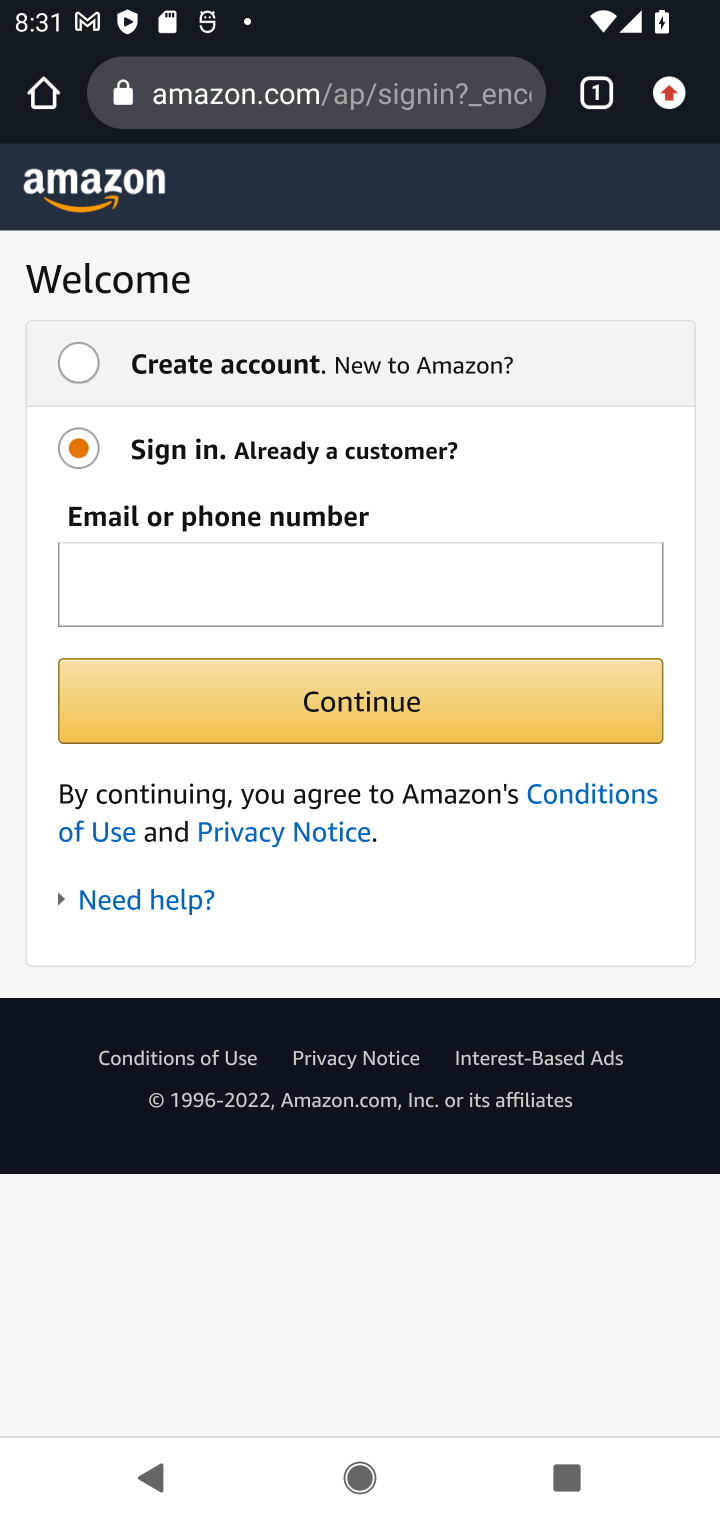
Step 29: task complete